Your task to perform on an android device: What is the recent news? Image 0: 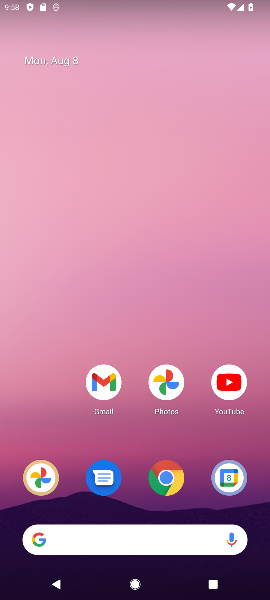
Step 0: drag from (154, 517) to (125, 129)
Your task to perform on an android device: What is the recent news? Image 1: 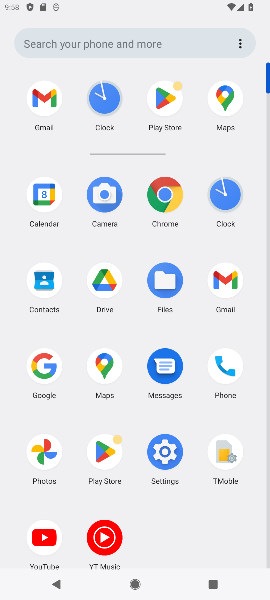
Step 1: click (38, 538)
Your task to perform on an android device: What is the recent news? Image 2: 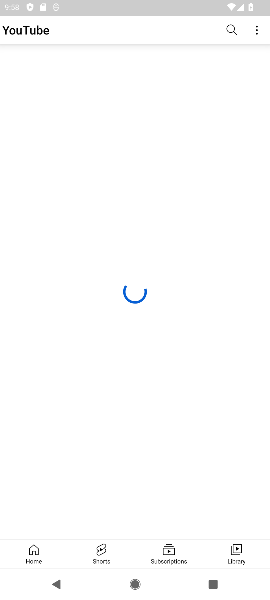
Step 2: press back button
Your task to perform on an android device: What is the recent news? Image 3: 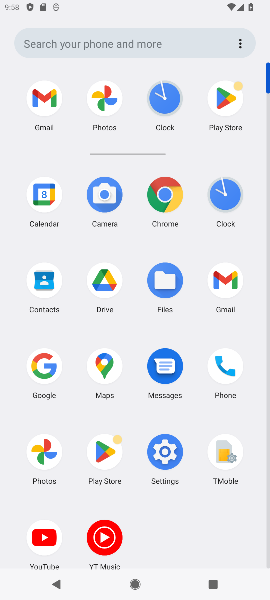
Step 3: click (39, 361)
Your task to perform on an android device: What is the recent news? Image 4: 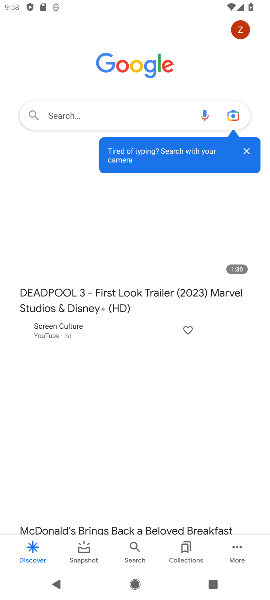
Step 4: click (84, 118)
Your task to perform on an android device: What is the recent news? Image 5: 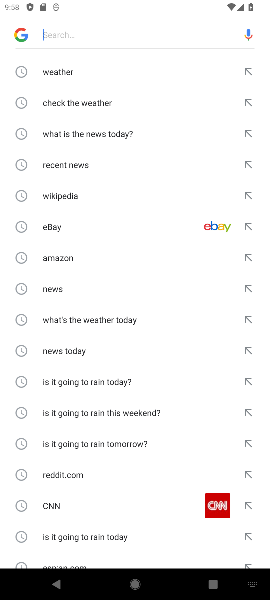
Step 5: click (66, 288)
Your task to perform on an android device: What is the recent news? Image 6: 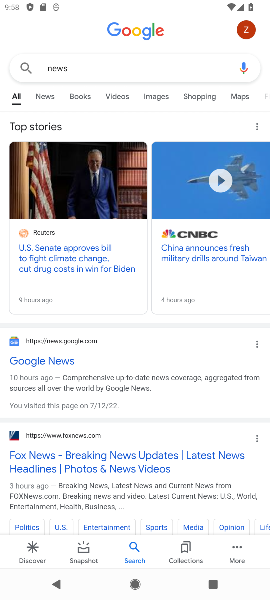
Step 6: task complete